Your task to perform on an android device: set the stopwatch Image 0: 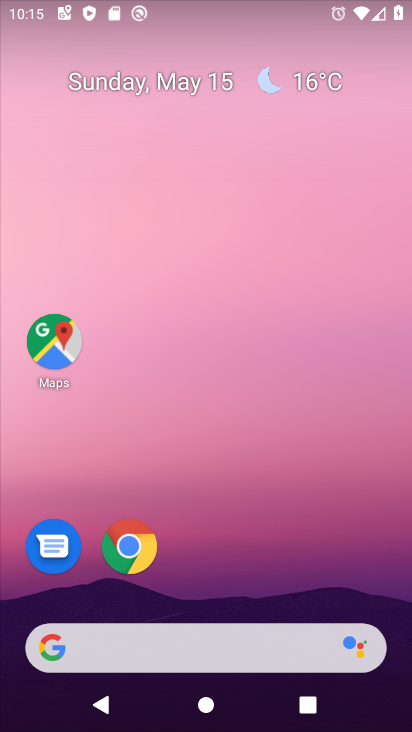
Step 0: drag from (247, 225) to (220, 59)
Your task to perform on an android device: set the stopwatch Image 1: 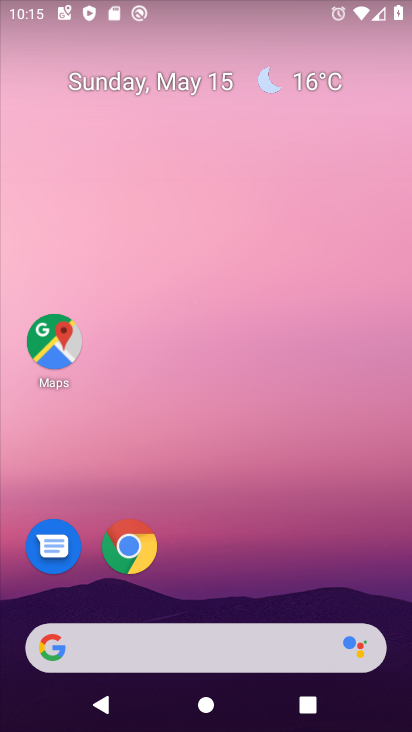
Step 1: click (253, 84)
Your task to perform on an android device: set the stopwatch Image 2: 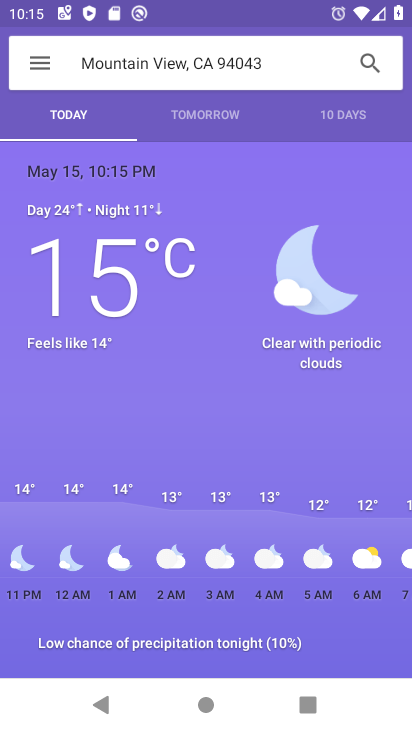
Step 2: press back button
Your task to perform on an android device: set the stopwatch Image 3: 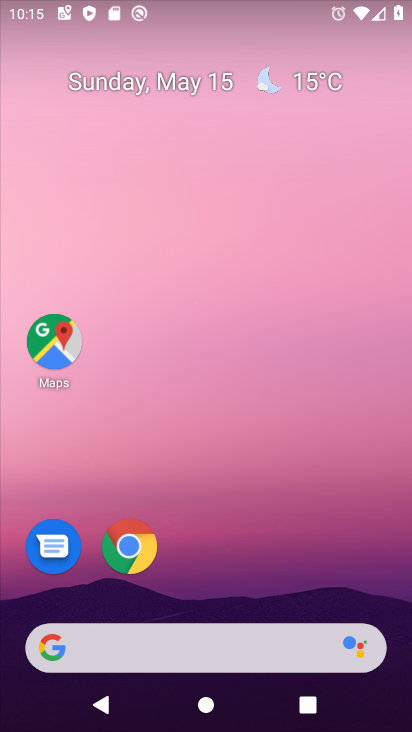
Step 3: drag from (245, 539) to (263, 190)
Your task to perform on an android device: set the stopwatch Image 4: 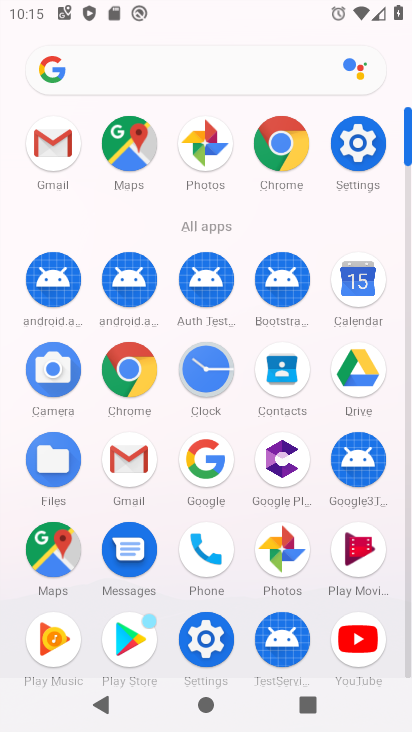
Step 4: click (213, 370)
Your task to perform on an android device: set the stopwatch Image 5: 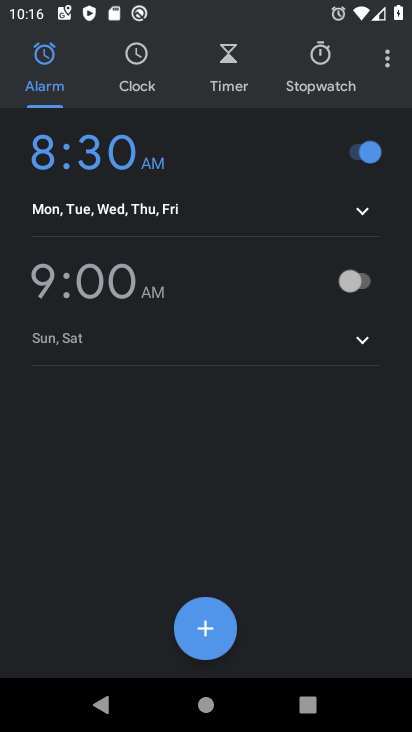
Step 5: click (328, 54)
Your task to perform on an android device: set the stopwatch Image 6: 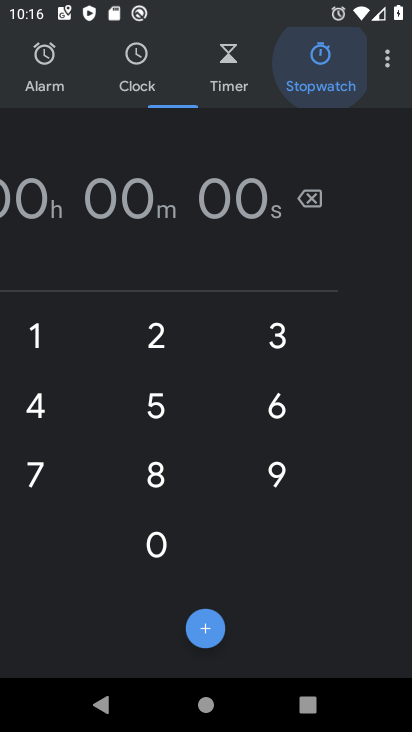
Step 6: click (311, 56)
Your task to perform on an android device: set the stopwatch Image 7: 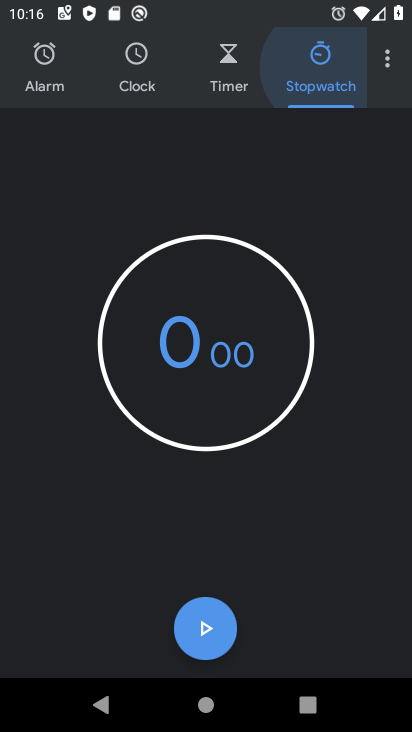
Step 7: click (311, 56)
Your task to perform on an android device: set the stopwatch Image 8: 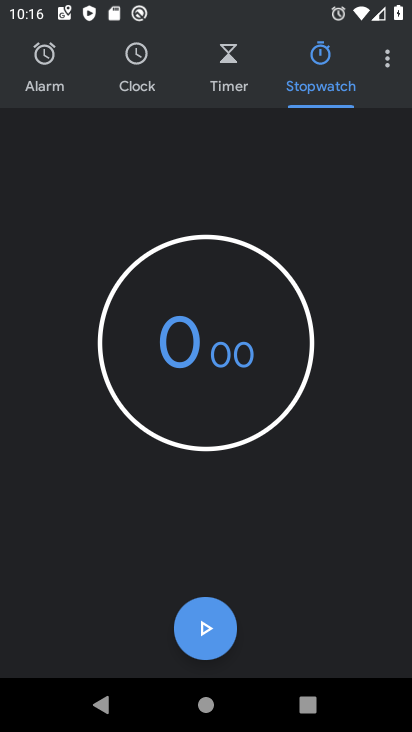
Step 8: click (202, 636)
Your task to perform on an android device: set the stopwatch Image 9: 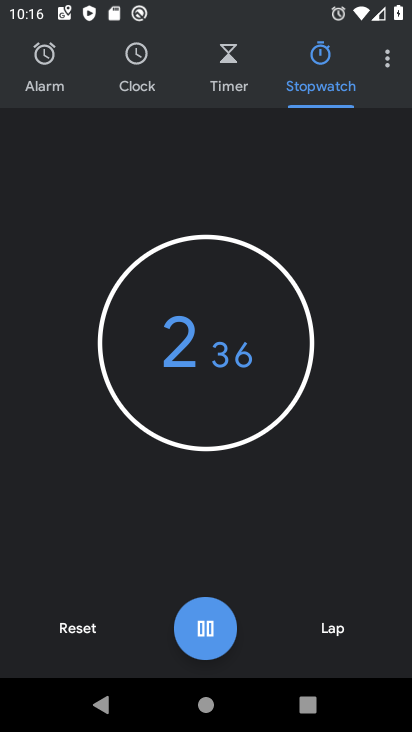
Step 9: click (203, 622)
Your task to perform on an android device: set the stopwatch Image 10: 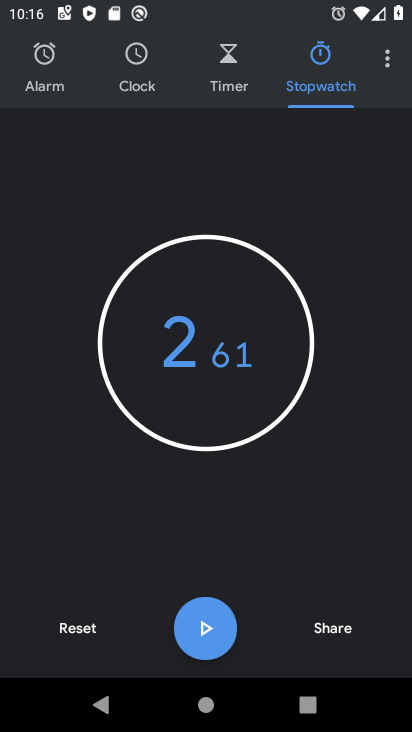
Step 10: task complete